Your task to perform on an android device: delete a single message in the gmail app Image 0: 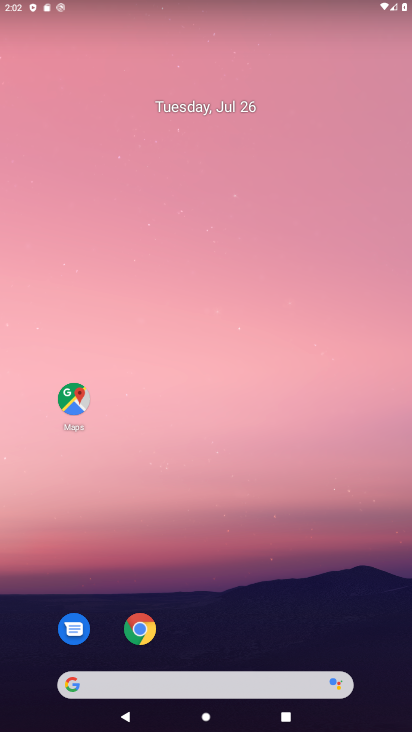
Step 0: drag from (277, 549) to (221, 134)
Your task to perform on an android device: delete a single message in the gmail app Image 1: 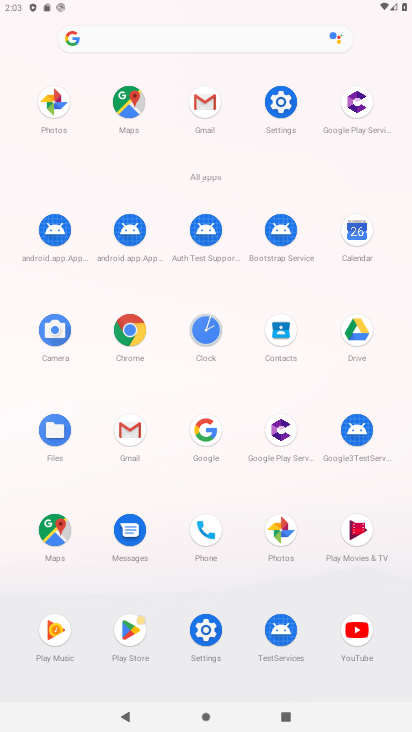
Step 1: click (208, 108)
Your task to perform on an android device: delete a single message in the gmail app Image 2: 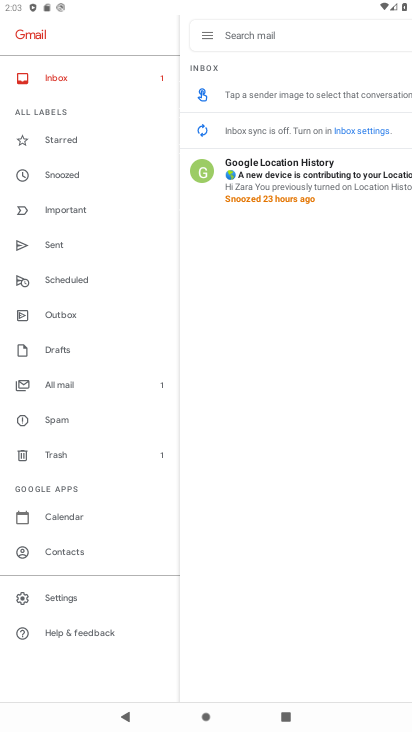
Step 2: click (97, 379)
Your task to perform on an android device: delete a single message in the gmail app Image 3: 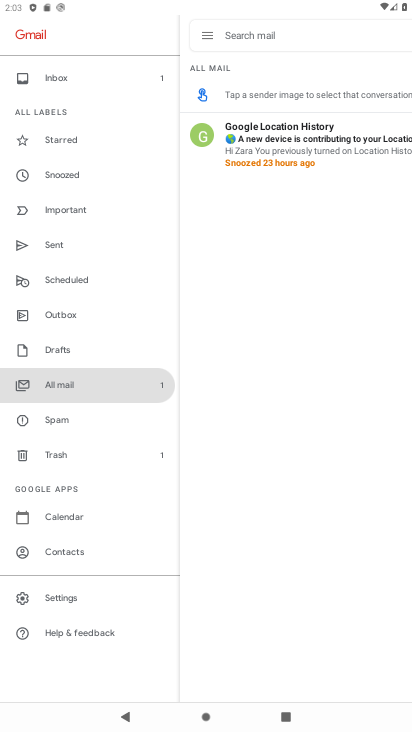
Step 3: click (208, 43)
Your task to perform on an android device: delete a single message in the gmail app Image 4: 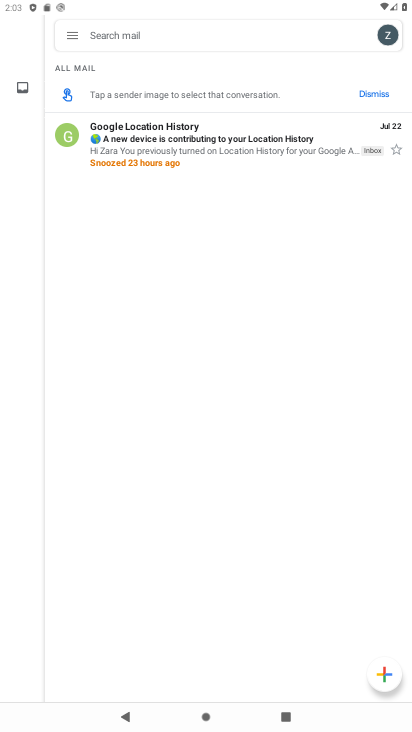
Step 4: click (64, 137)
Your task to perform on an android device: delete a single message in the gmail app Image 5: 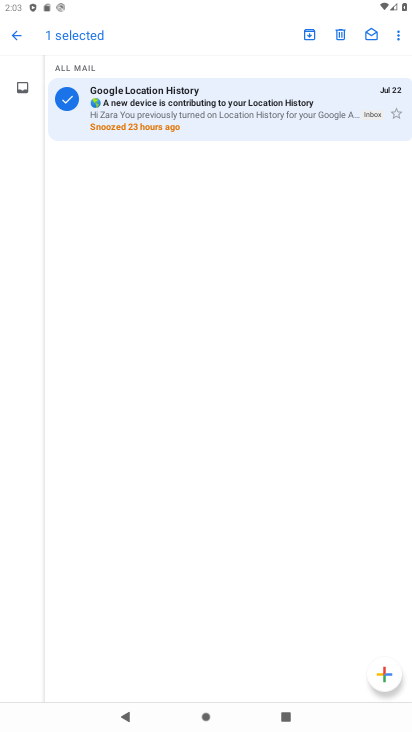
Step 5: click (343, 37)
Your task to perform on an android device: delete a single message in the gmail app Image 6: 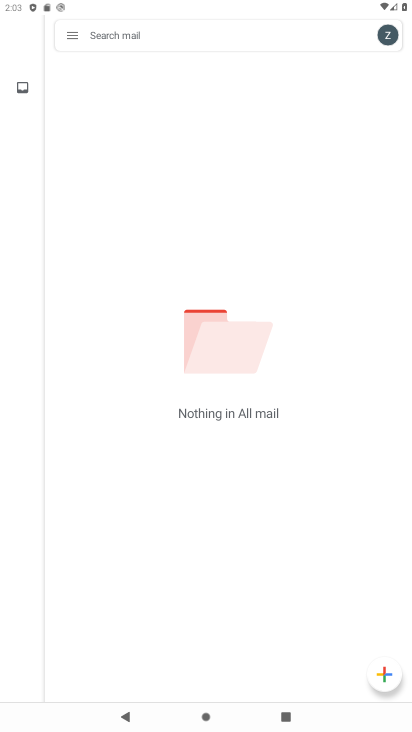
Step 6: task complete